Your task to perform on an android device: open app "Indeed Job Search" (install if not already installed) Image 0: 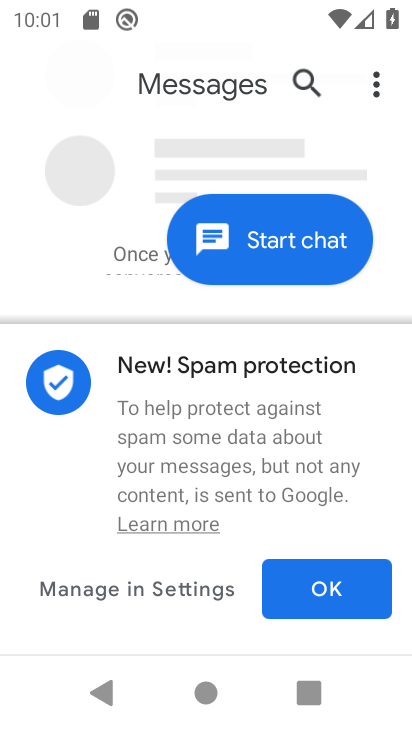
Step 0: click (304, 85)
Your task to perform on an android device: open app "Indeed Job Search" (install if not already installed) Image 1: 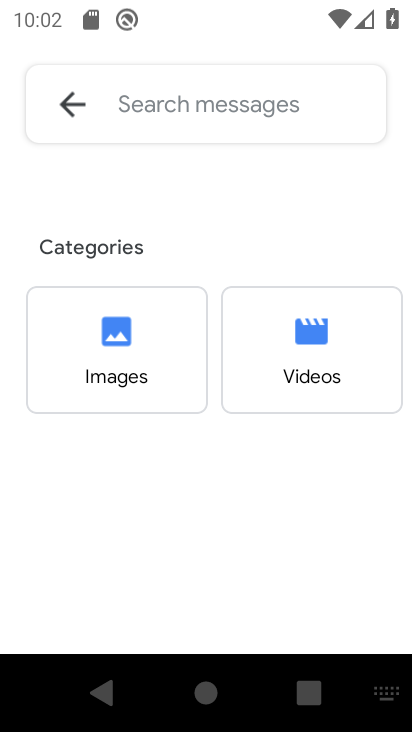
Step 1: press home button
Your task to perform on an android device: open app "Indeed Job Search" (install if not already installed) Image 2: 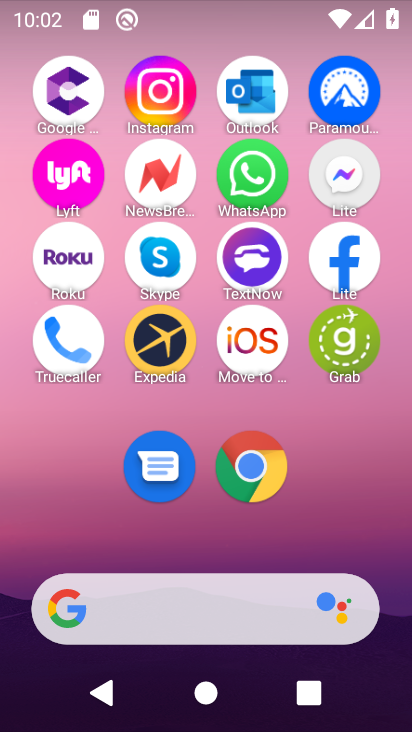
Step 2: drag from (220, 721) to (226, 58)
Your task to perform on an android device: open app "Indeed Job Search" (install if not already installed) Image 3: 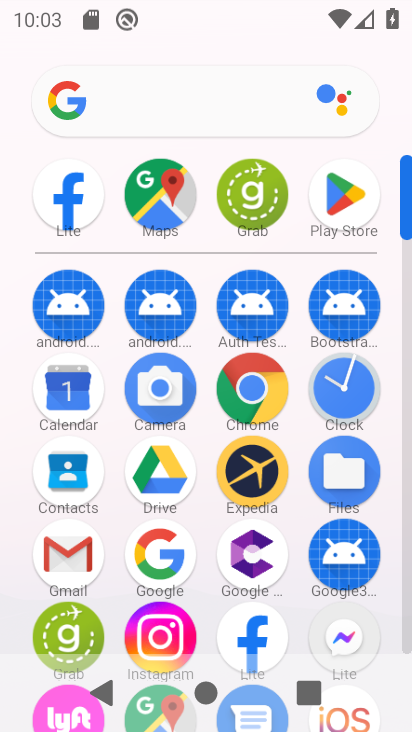
Step 3: click (339, 204)
Your task to perform on an android device: open app "Indeed Job Search" (install if not already installed) Image 4: 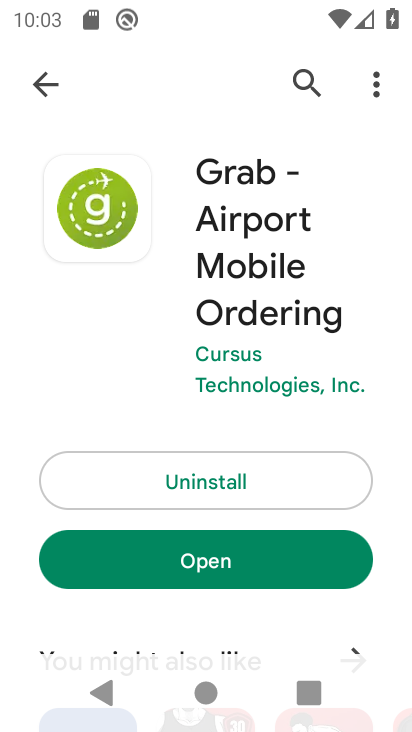
Step 4: click (302, 77)
Your task to perform on an android device: open app "Indeed Job Search" (install if not already installed) Image 5: 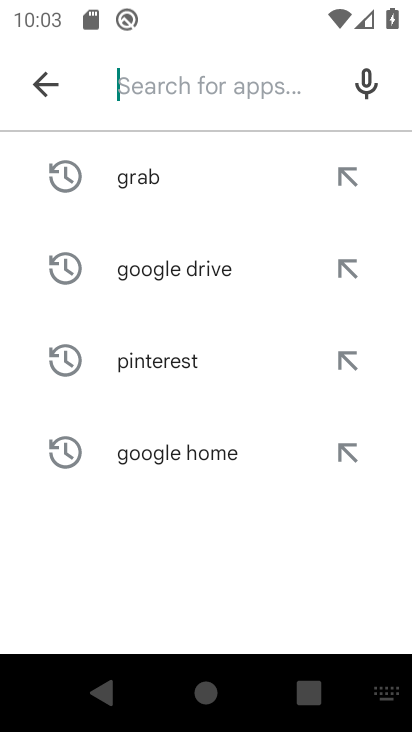
Step 5: type "Indeed Job Search"
Your task to perform on an android device: open app "Indeed Job Search" (install if not already installed) Image 6: 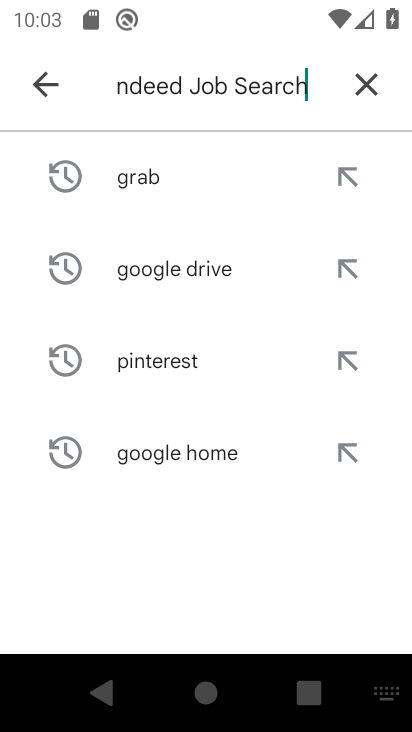
Step 6: type ""
Your task to perform on an android device: open app "Indeed Job Search" (install if not already installed) Image 7: 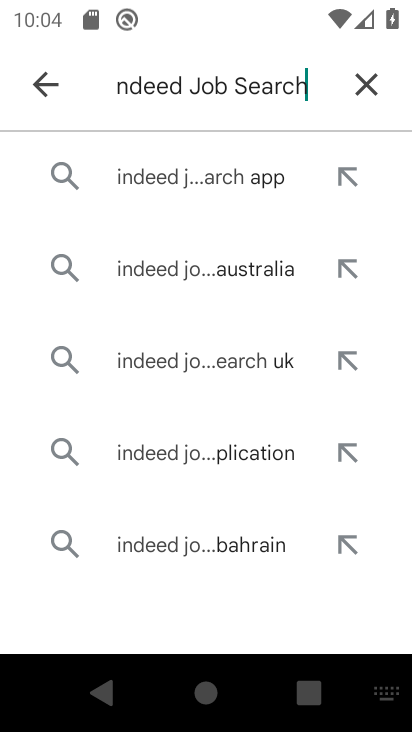
Step 7: click (250, 177)
Your task to perform on an android device: open app "Indeed Job Search" (install if not already installed) Image 8: 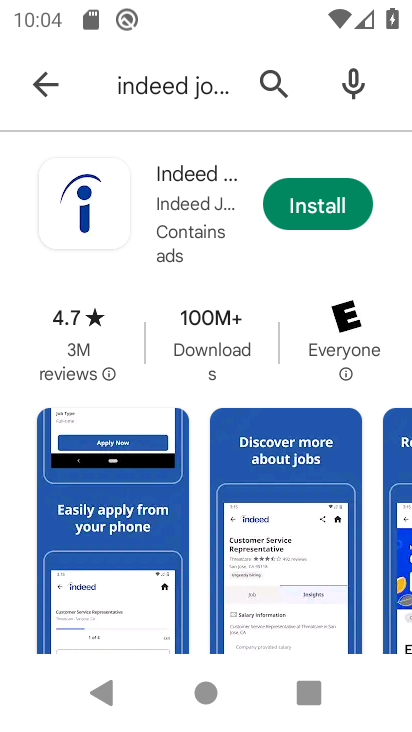
Step 8: click (343, 206)
Your task to perform on an android device: open app "Indeed Job Search" (install if not already installed) Image 9: 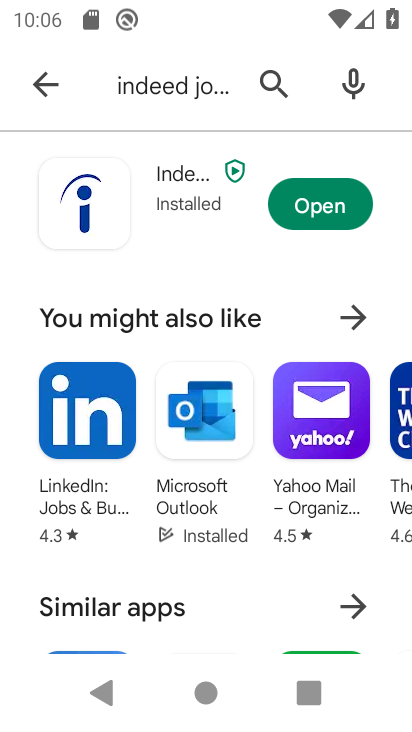
Step 9: click (334, 207)
Your task to perform on an android device: open app "Indeed Job Search" (install if not already installed) Image 10: 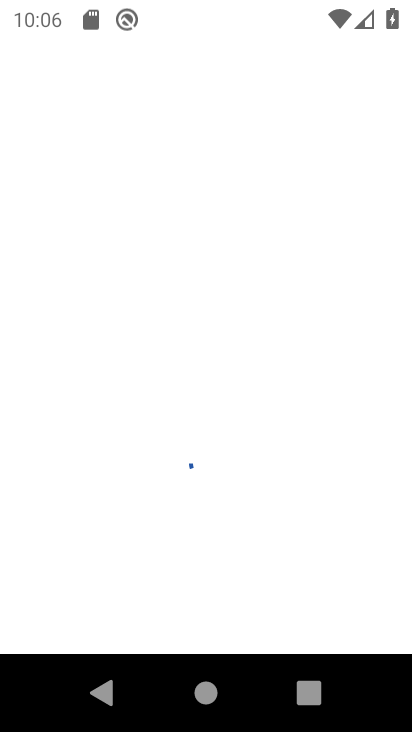
Step 10: task complete